Your task to perform on an android device: toggle show notifications on the lock screen Image 0: 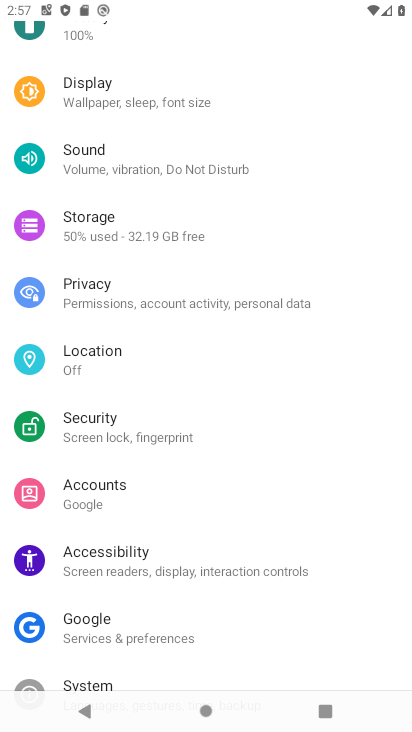
Step 0: press home button
Your task to perform on an android device: toggle show notifications on the lock screen Image 1: 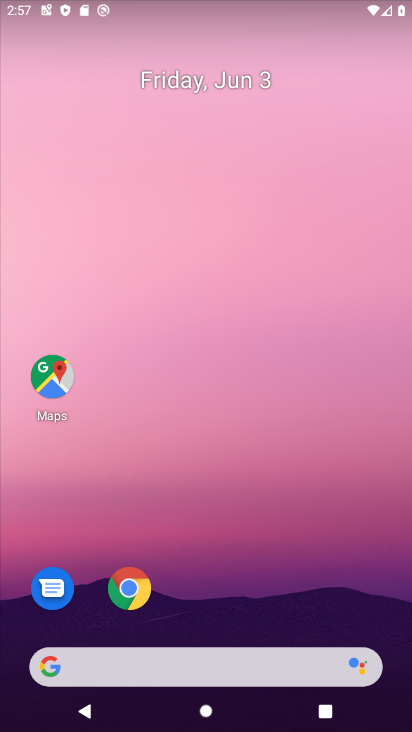
Step 1: drag from (44, 459) to (237, 65)
Your task to perform on an android device: toggle show notifications on the lock screen Image 2: 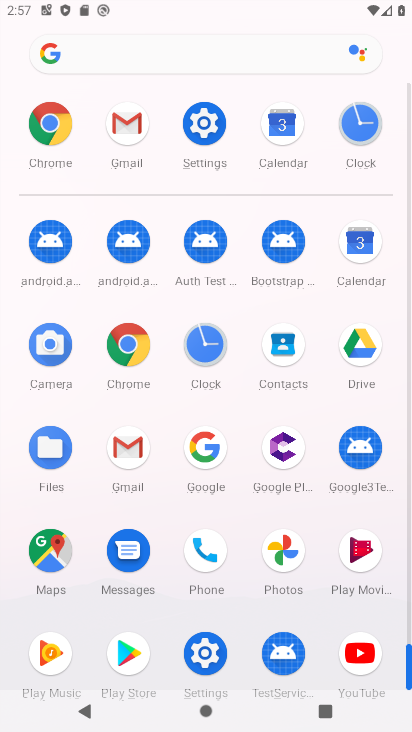
Step 2: click (207, 120)
Your task to perform on an android device: toggle show notifications on the lock screen Image 3: 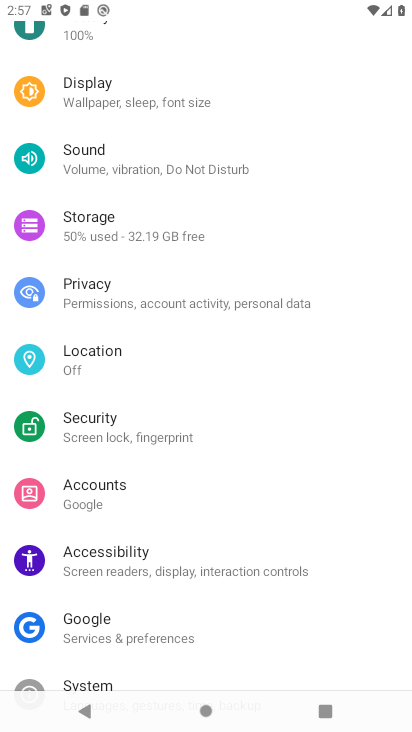
Step 3: drag from (93, 127) to (24, 667)
Your task to perform on an android device: toggle show notifications on the lock screen Image 4: 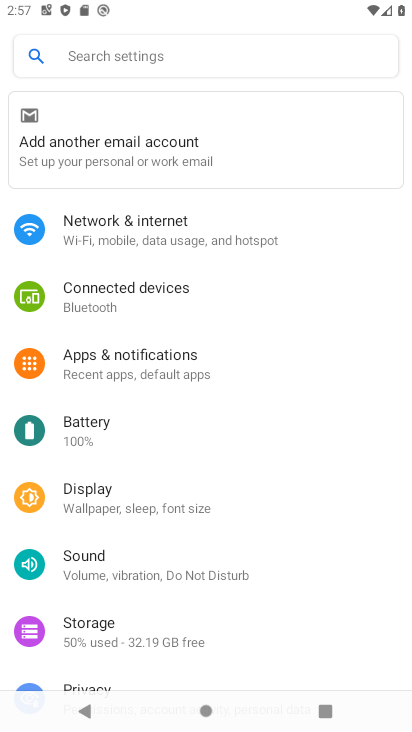
Step 4: click (102, 362)
Your task to perform on an android device: toggle show notifications on the lock screen Image 5: 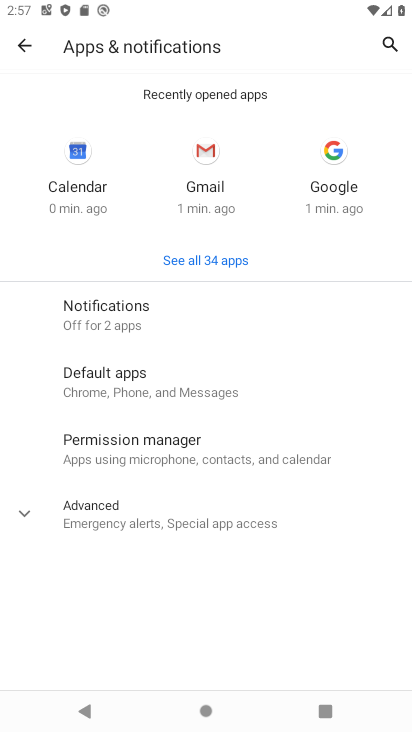
Step 5: click (115, 324)
Your task to perform on an android device: toggle show notifications on the lock screen Image 6: 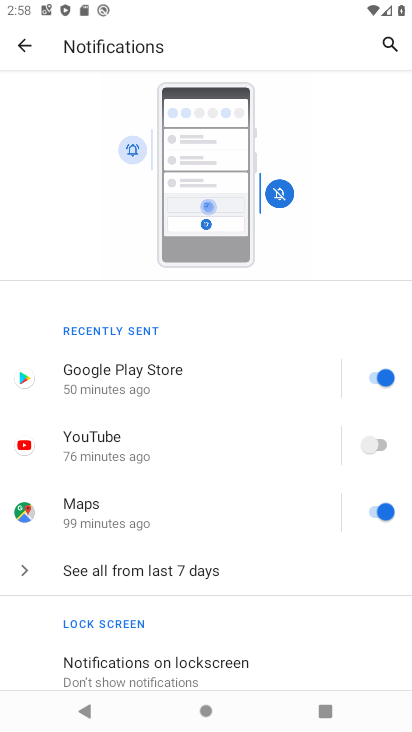
Step 6: click (99, 670)
Your task to perform on an android device: toggle show notifications on the lock screen Image 7: 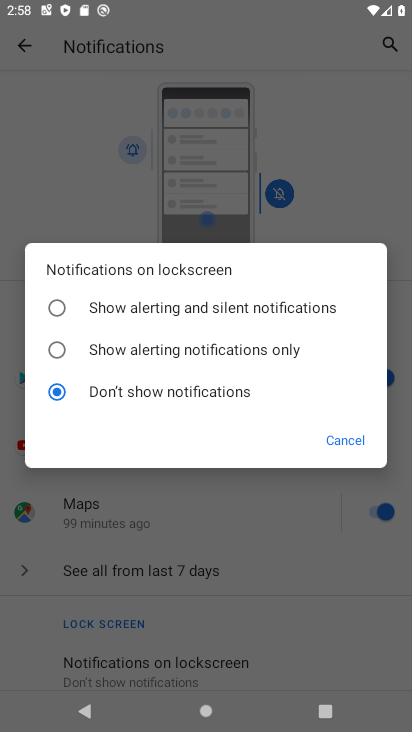
Step 7: click (249, 302)
Your task to perform on an android device: toggle show notifications on the lock screen Image 8: 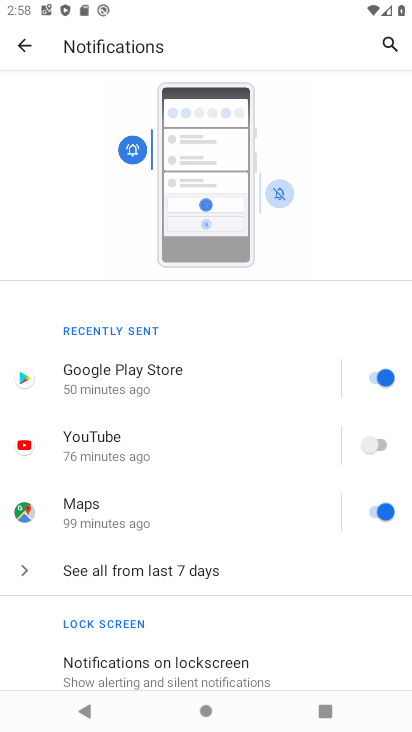
Step 8: task complete